Your task to perform on an android device: find photos in the google photos app Image 0: 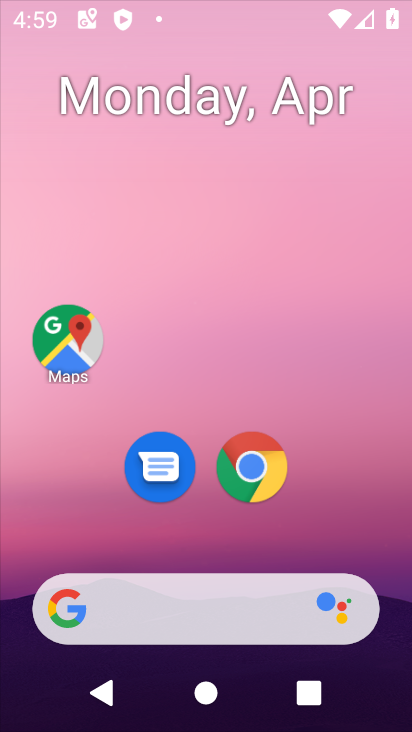
Step 0: drag from (307, 434) to (320, 23)
Your task to perform on an android device: find photos in the google photos app Image 1: 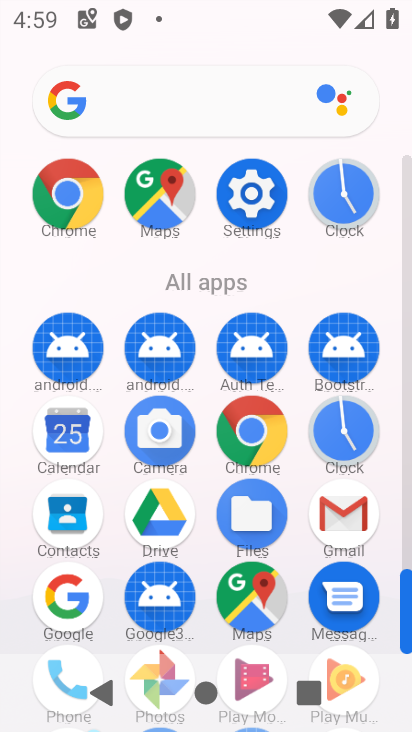
Step 1: drag from (200, 637) to (200, 296)
Your task to perform on an android device: find photos in the google photos app Image 2: 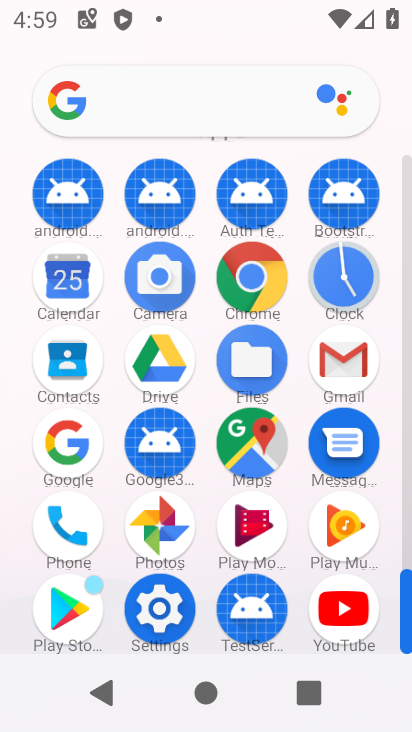
Step 2: click (169, 529)
Your task to perform on an android device: find photos in the google photos app Image 3: 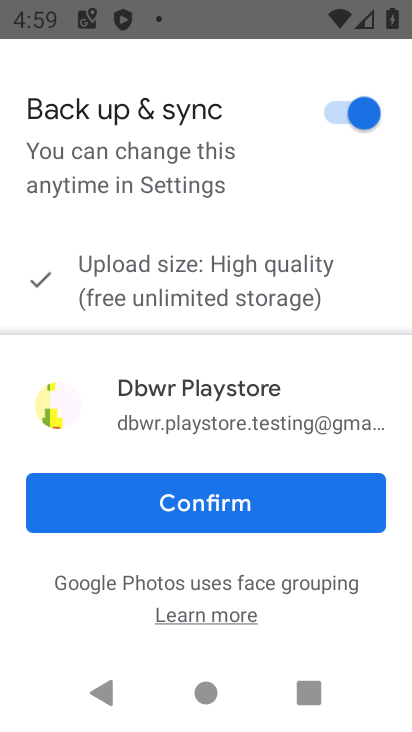
Step 3: click (298, 508)
Your task to perform on an android device: find photos in the google photos app Image 4: 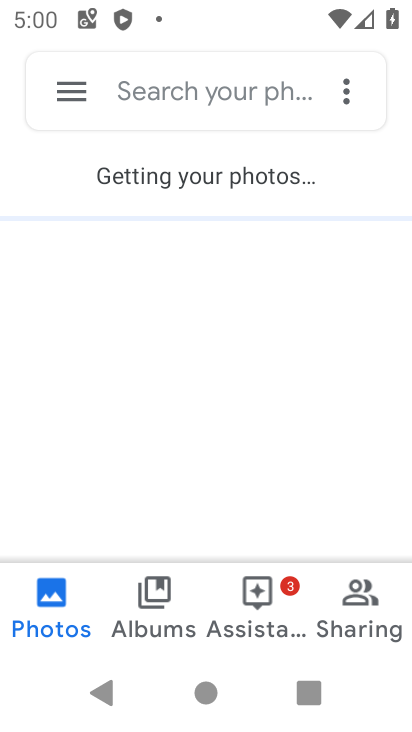
Step 4: task complete